Your task to perform on an android device: What's on my calendar tomorrow? Image 0: 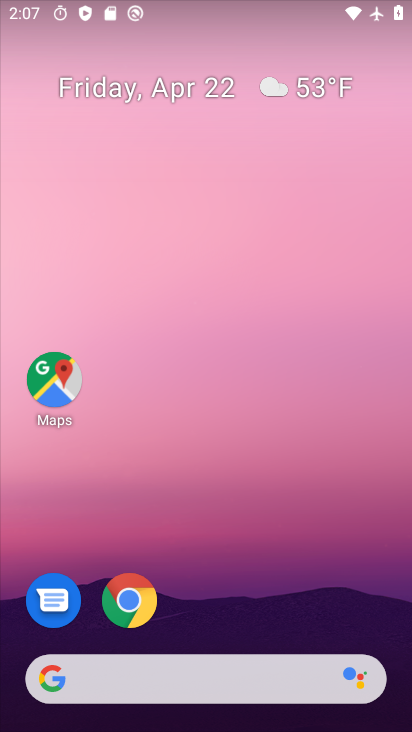
Step 0: drag from (201, 721) to (205, 121)
Your task to perform on an android device: What's on my calendar tomorrow? Image 1: 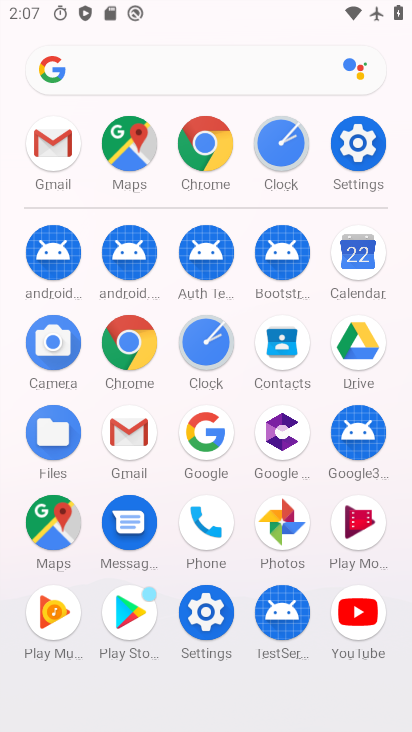
Step 1: click (361, 251)
Your task to perform on an android device: What's on my calendar tomorrow? Image 2: 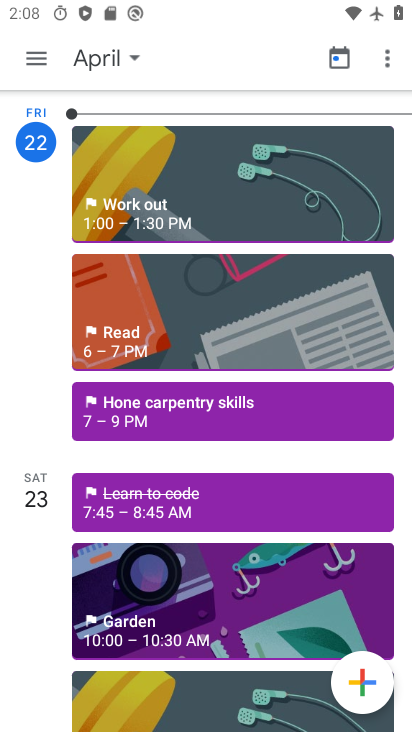
Step 2: click (95, 57)
Your task to perform on an android device: What's on my calendar tomorrow? Image 3: 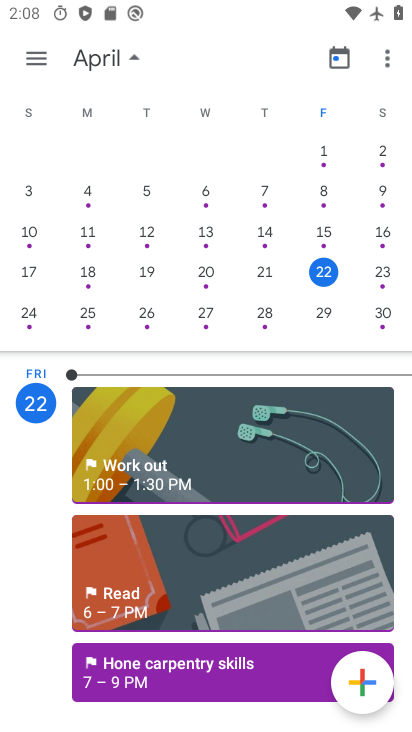
Step 3: click (384, 268)
Your task to perform on an android device: What's on my calendar tomorrow? Image 4: 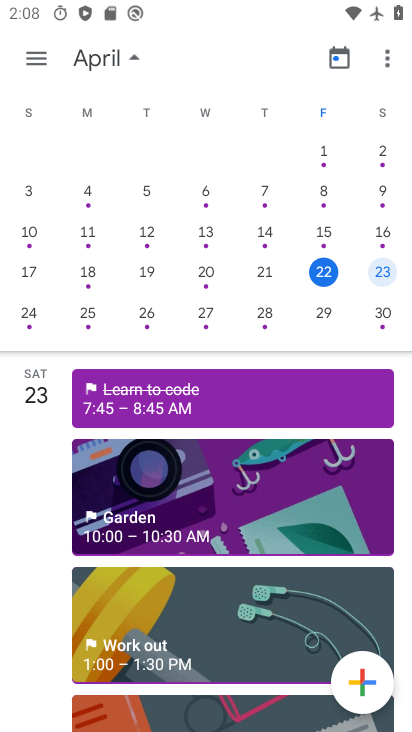
Step 4: task complete